Your task to perform on an android device: Turn on the flashlight Image 0: 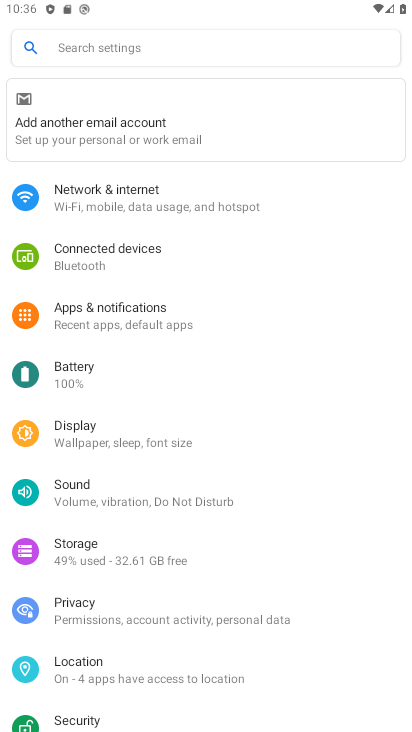
Step 0: press home button
Your task to perform on an android device: Turn on the flashlight Image 1: 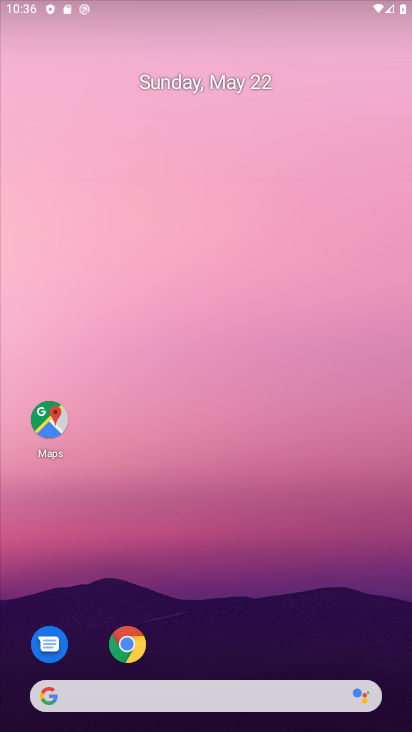
Step 1: drag from (380, 619) to (331, 47)
Your task to perform on an android device: Turn on the flashlight Image 2: 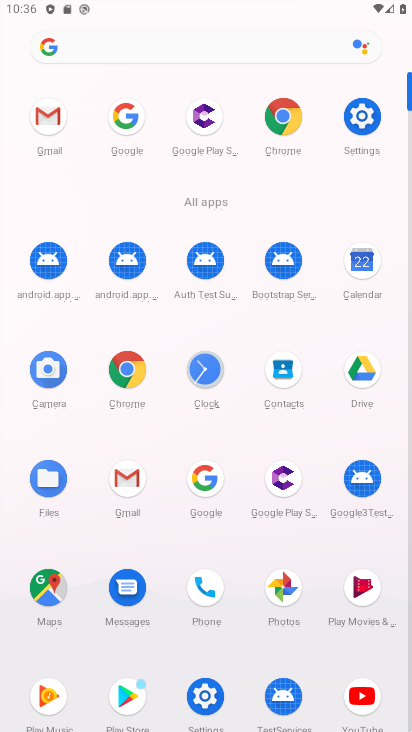
Step 2: click (360, 127)
Your task to perform on an android device: Turn on the flashlight Image 3: 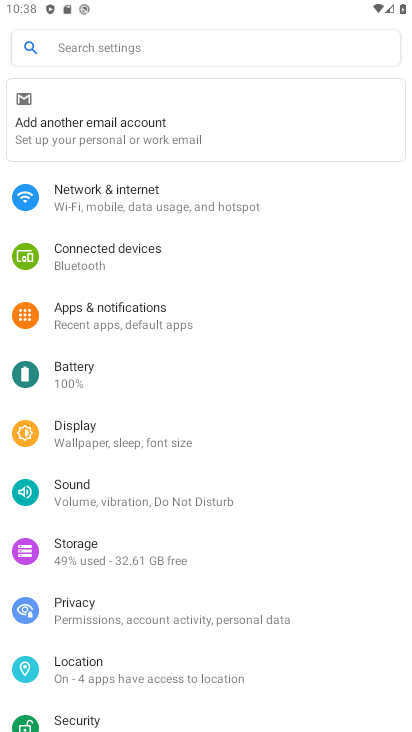
Step 3: task complete